Your task to perform on an android device: Go to location settings Image 0: 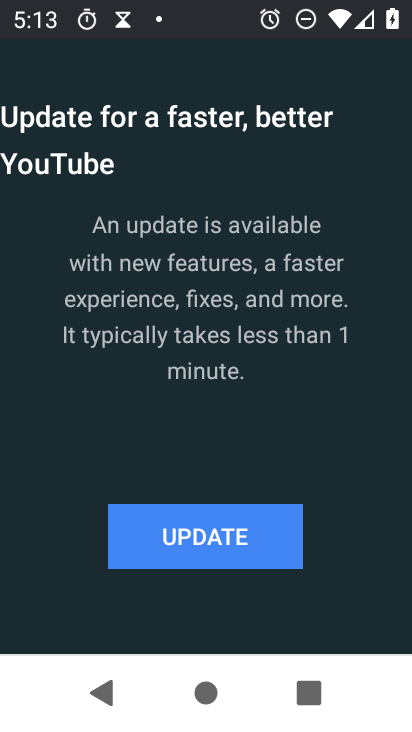
Step 0: press back button
Your task to perform on an android device: Go to location settings Image 1: 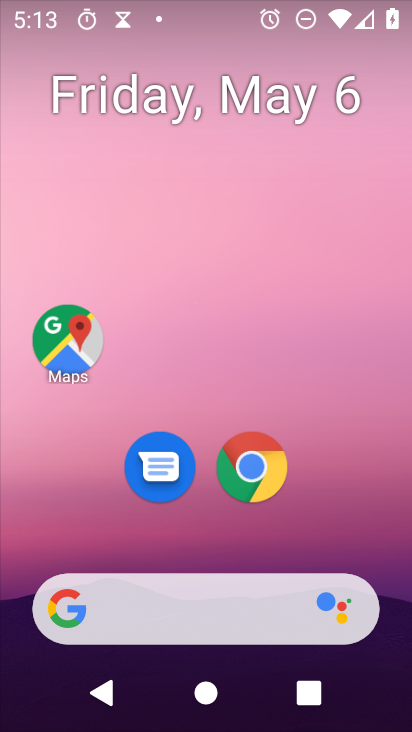
Step 1: drag from (292, 516) to (224, 163)
Your task to perform on an android device: Go to location settings Image 2: 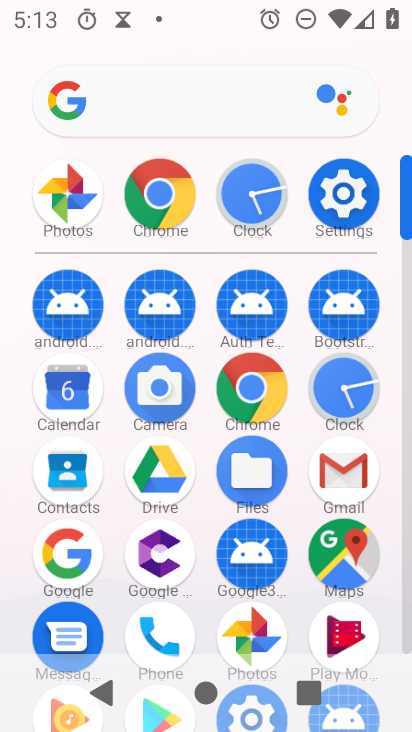
Step 2: click (338, 195)
Your task to perform on an android device: Go to location settings Image 3: 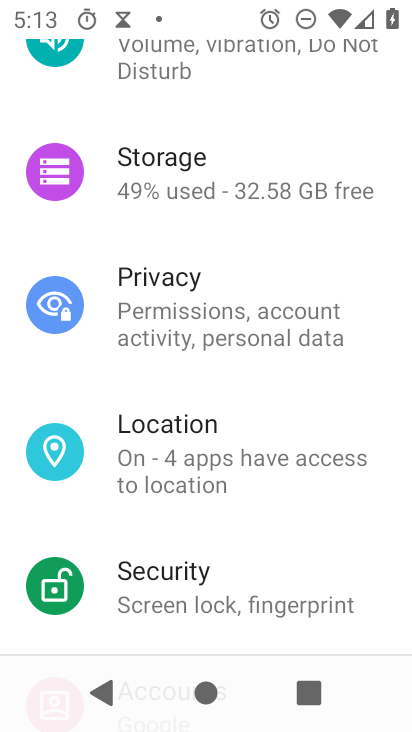
Step 3: click (193, 479)
Your task to perform on an android device: Go to location settings Image 4: 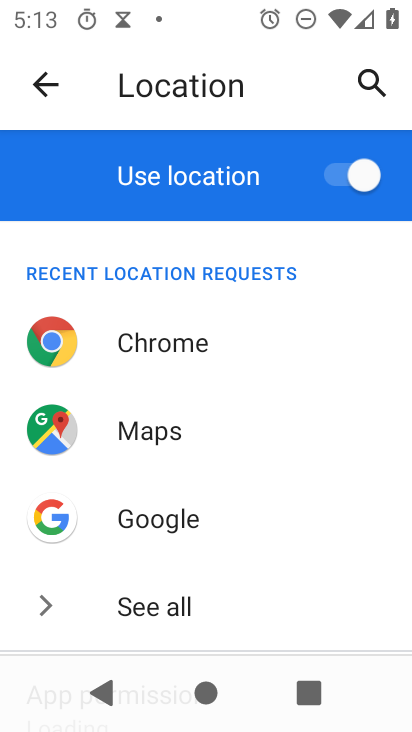
Step 4: task complete